Your task to perform on an android device: What is the recent news? Image 0: 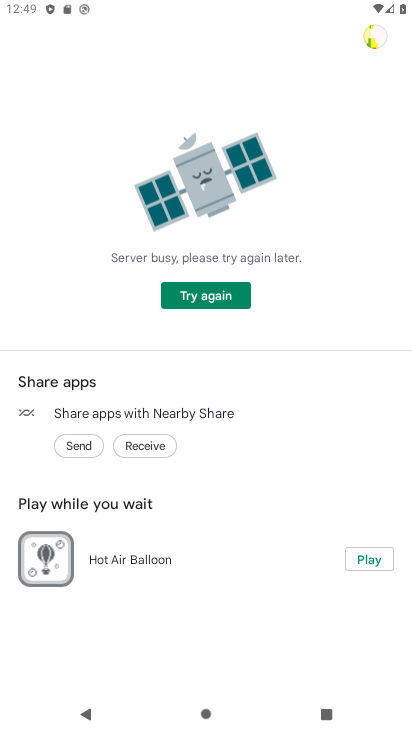
Step 0: press home button
Your task to perform on an android device: What is the recent news? Image 1: 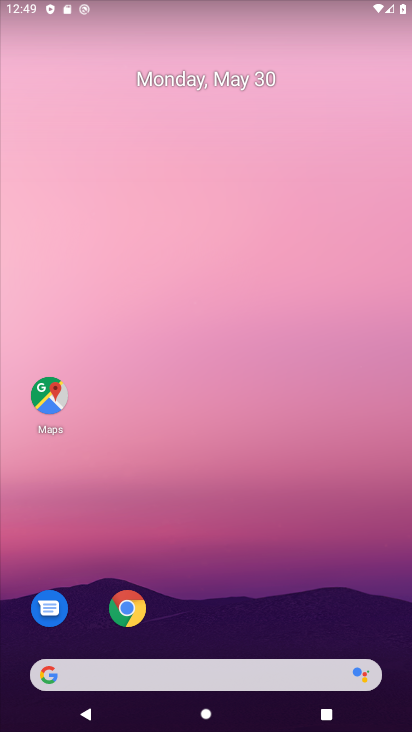
Step 1: task complete